Your task to perform on an android device: Go to privacy settings Image 0: 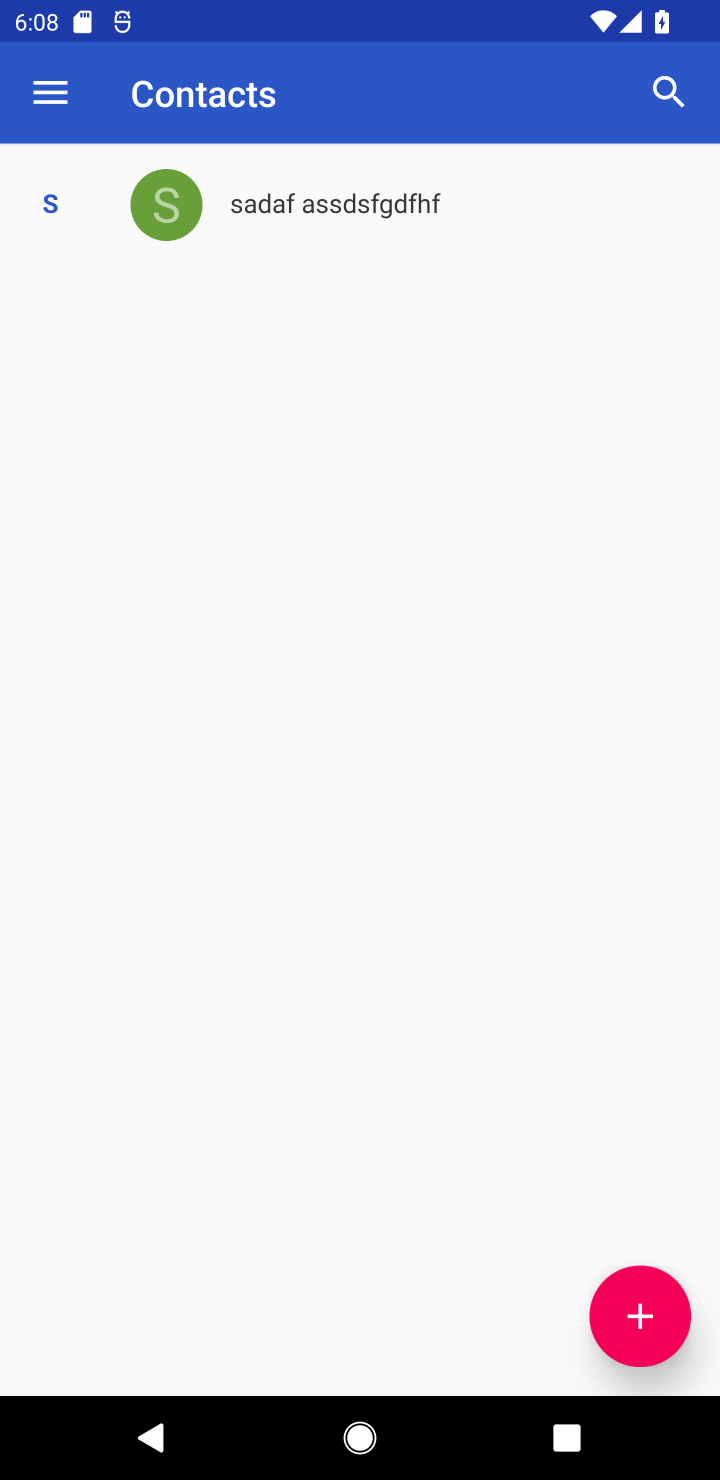
Step 0: press home button
Your task to perform on an android device: Go to privacy settings Image 1: 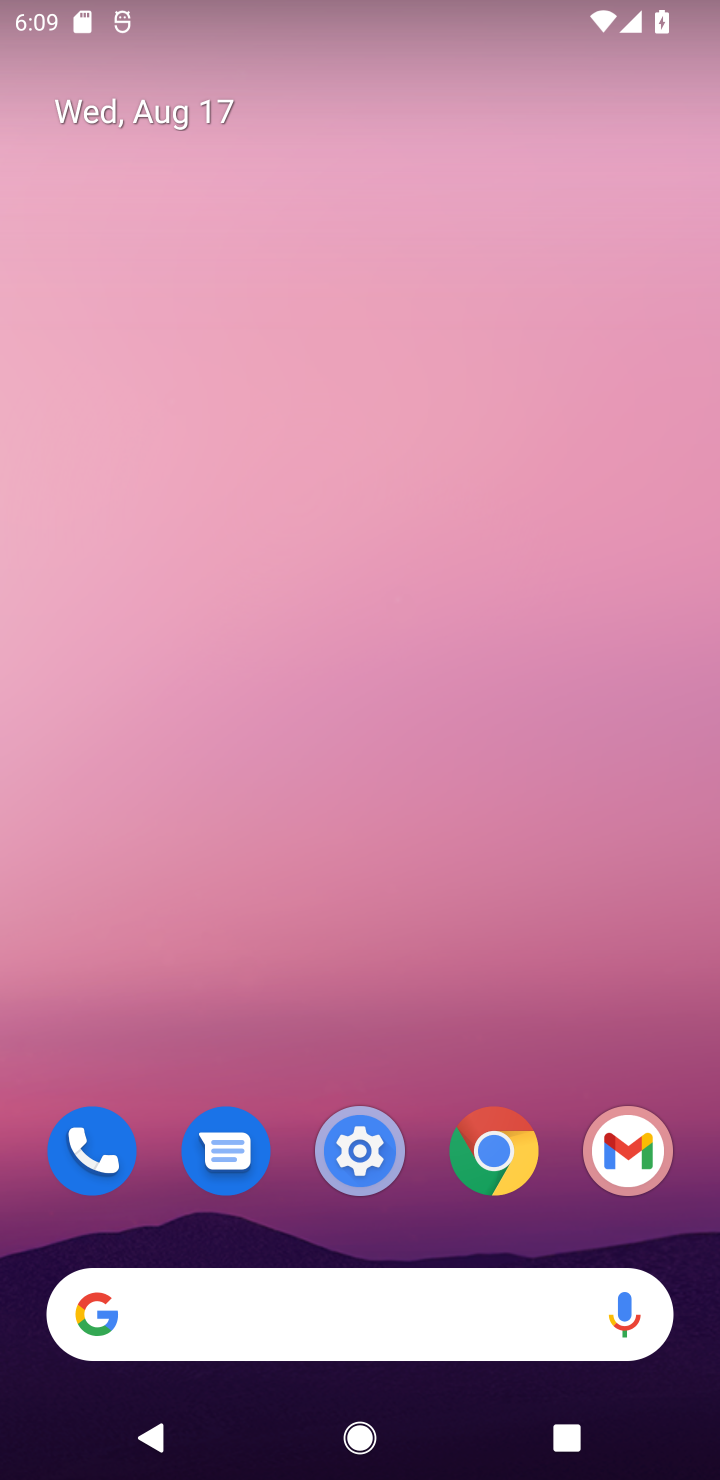
Step 1: click (310, 1168)
Your task to perform on an android device: Go to privacy settings Image 2: 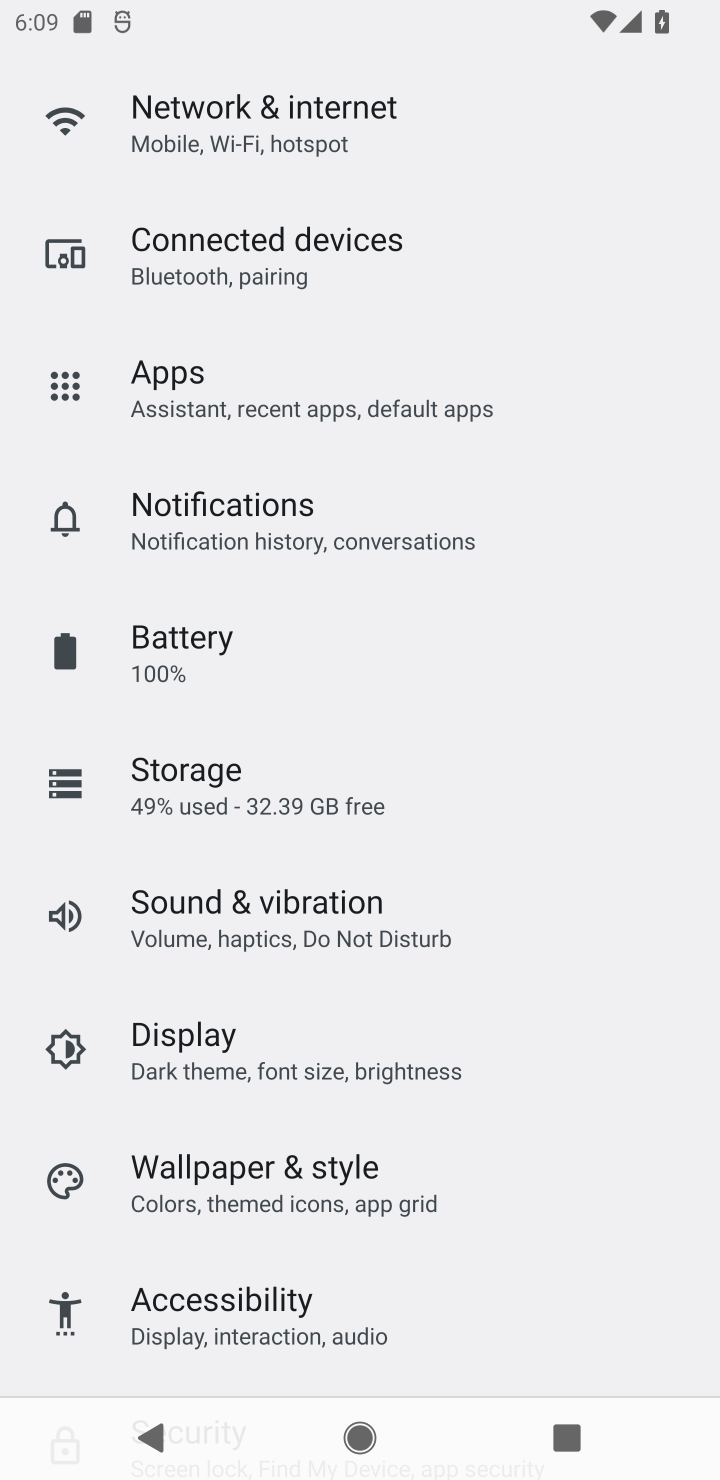
Step 2: drag from (361, 1371) to (380, 796)
Your task to perform on an android device: Go to privacy settings Image 3: 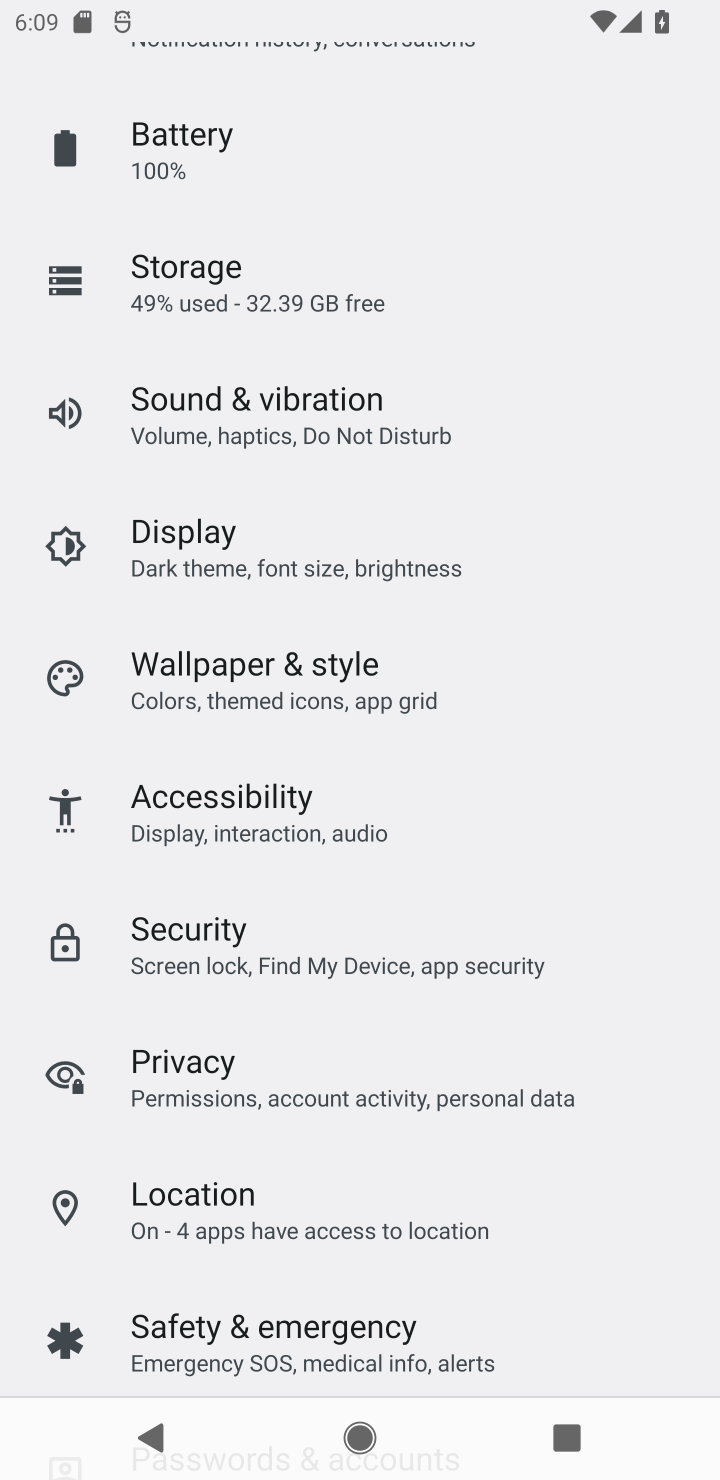
Step 3: click (216, 1103)
Your task to perform on an android device: Go to privacy settings Image 4: 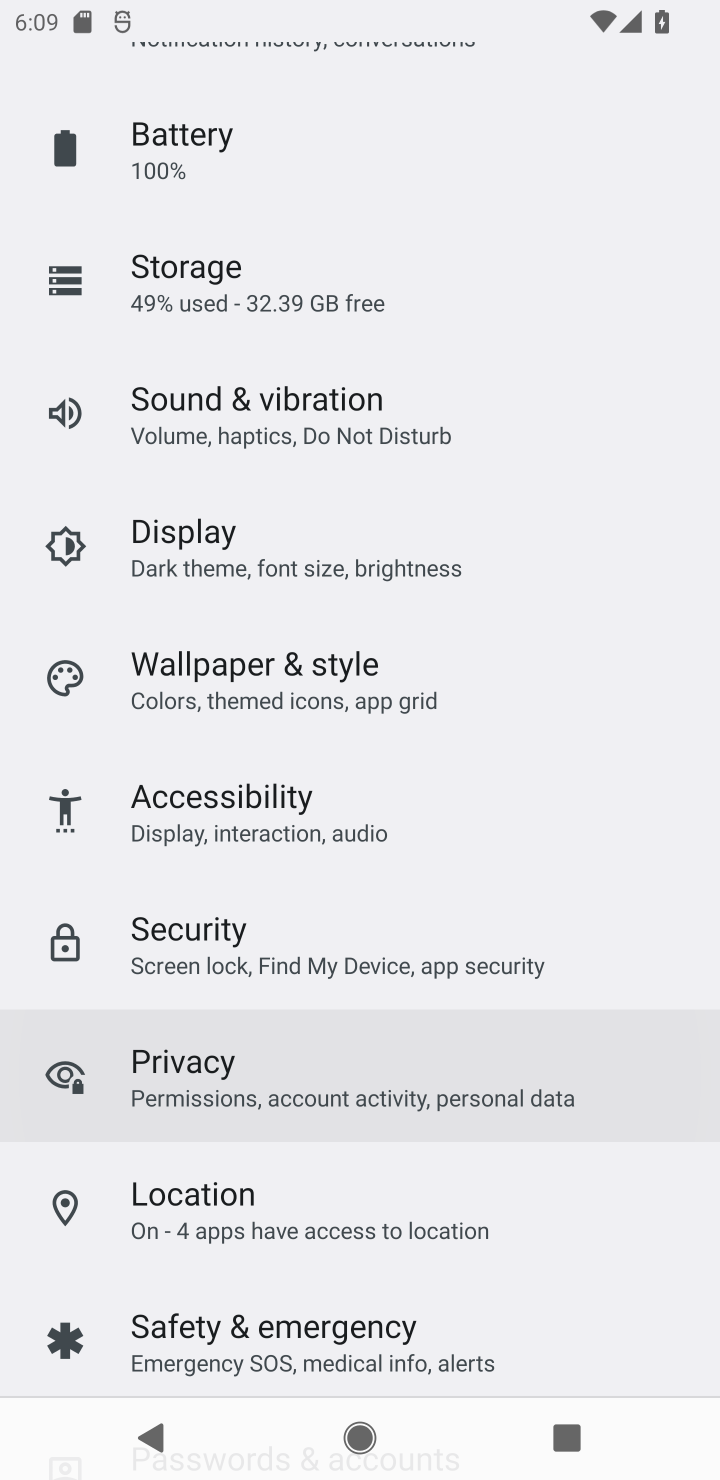
Step 4: task complete